Your task to perform on an android device: Open calendar and show me the third week of next month Image 0: 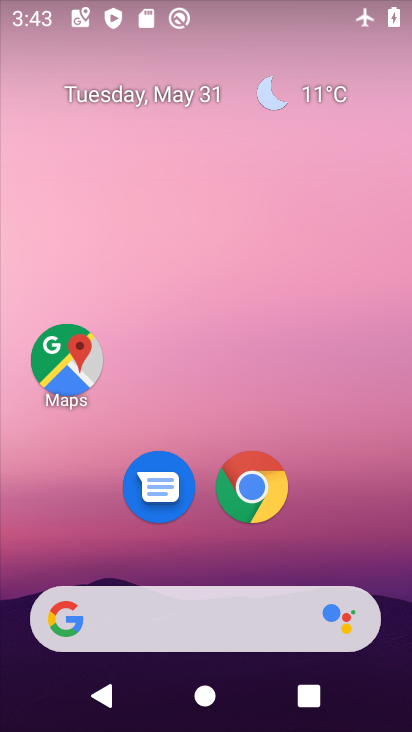
Step 0: drag from (342, 537) to (276, 59)
Your task to perform on an android device: Open calendar and show me the third week of next month Image 1: 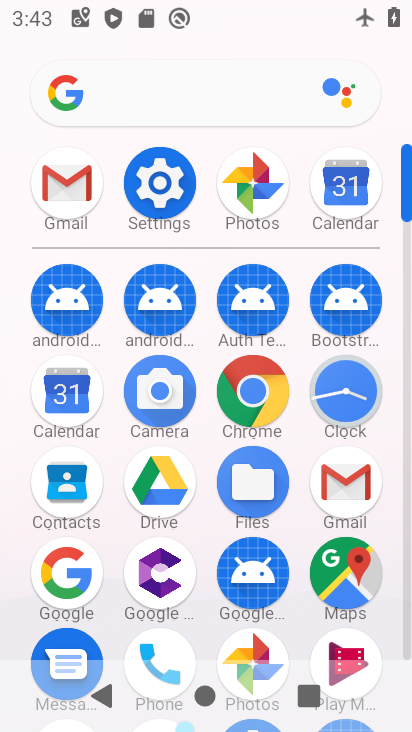
Step 1: click (346, 185)
Your task to perform on an android device: Open calendar and show me the third week of next month Image 2: 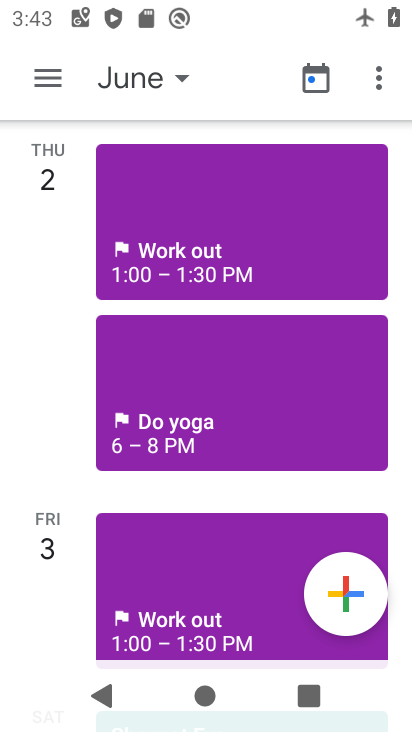
Step 2: click (316, 77)
Your task to perform on an android device: Open calendar and show me the third week of next month Image 3: 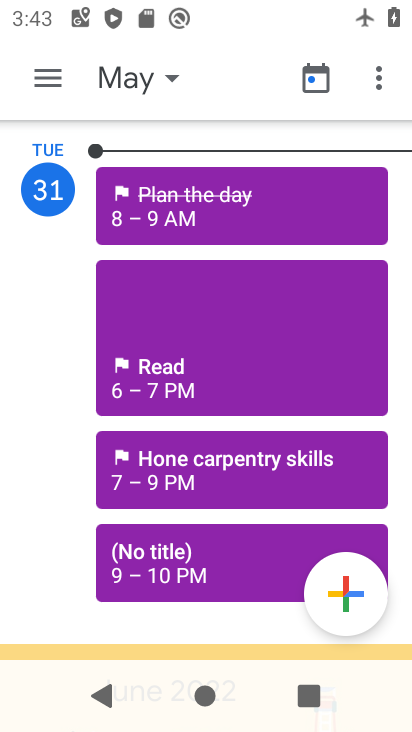
Step 3: click (318, 78)
Your task to perform on an android device: Open calendar and show me the third week of next month Image 4: 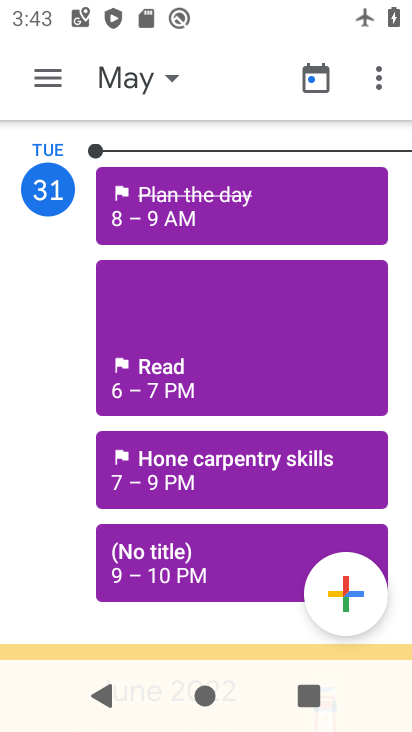
Step 4: click (323, 79)
Your task to perform on an android device: Open calendar and show me the third week of next month Image 5: 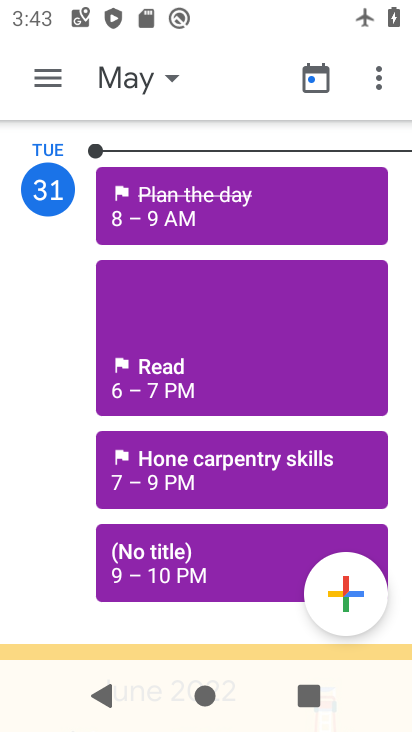
Step 5: click (319, 75)
Your task to perform on an android device: Open calendar and show me the third week of next month Image 6: 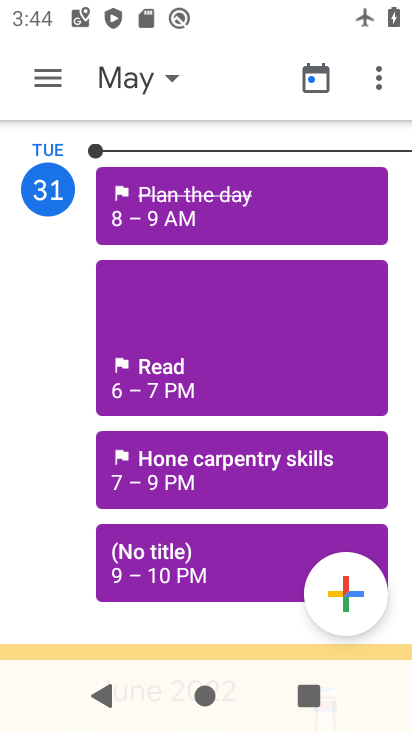
Step 6: click (174, 79)
Your task to perform on an android device: Open calendar and show me the third week of next month Image 7: 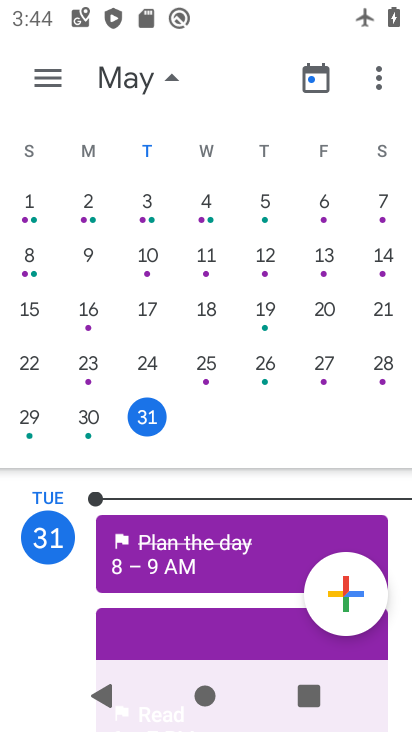
Step 7: drag from (300, 350) to (3, 355)
Your task to perform on an android device: Open calendar and show me the third week of next month Image 8: 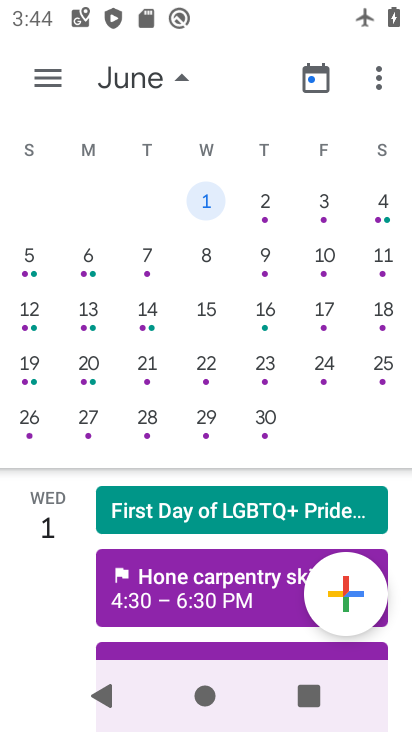
Step 8: click (92, 362)
Your task to perform on an android device: Open calendar and show me the third week of next month Image 9: 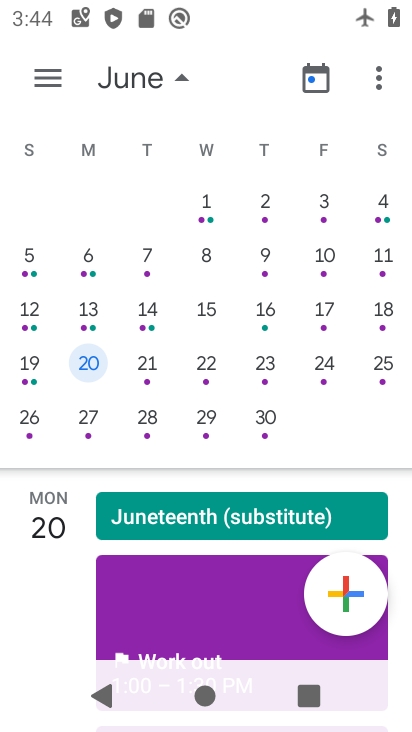
Step 9: click (53, 87)
Your task to perform on an android device: Open calendar and show me the third week of next month Image 10: 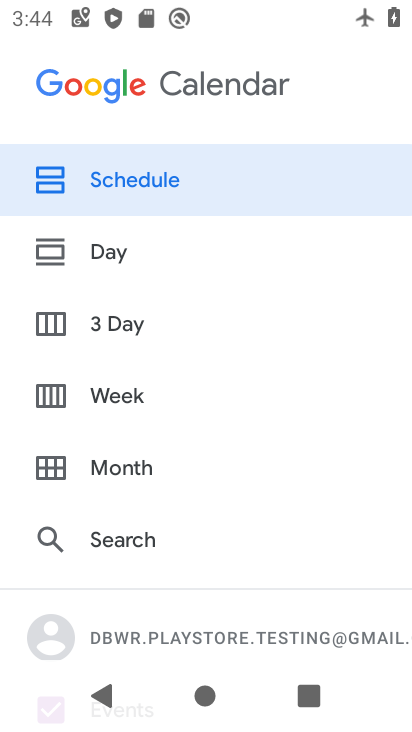
Step 10: click (120, 390)
Your task to perform on an android device: Open calendar and show me the third week of next month Image 11: 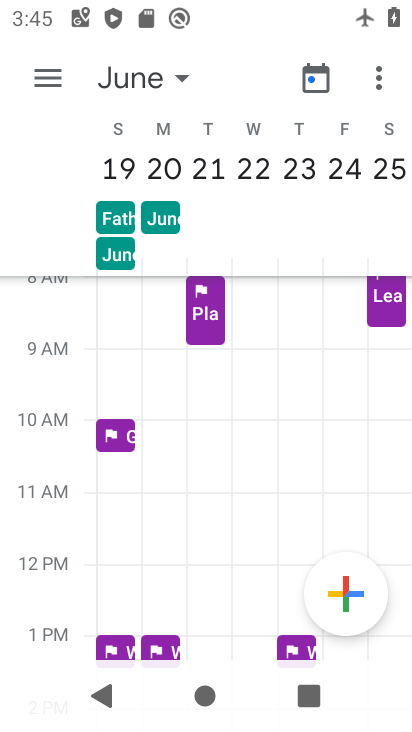
Step 11: task complete